Your task to perform on an android device: turn on showing notifications on the lock screen Image 0: 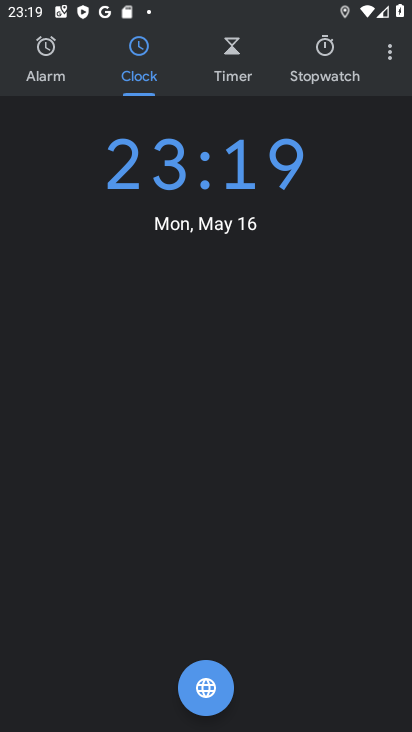
Step 0: press home button
Your task to perform on an android device: turn on showing notifications on the lock screen Image 1: 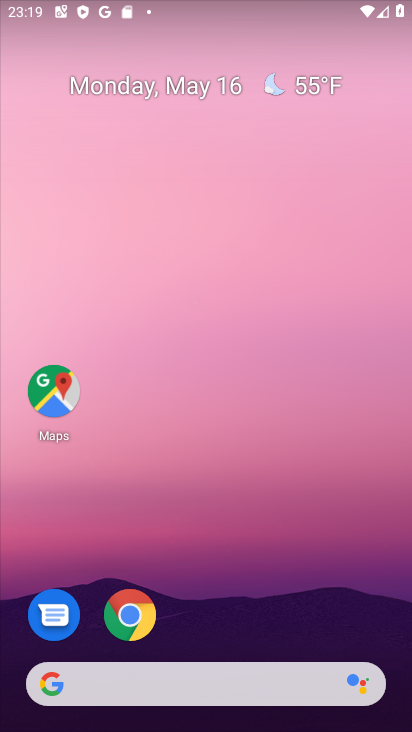
Step 1: drag from (244, 638) to (162, 29)
Your task to perform on an android device: turn on showing notifications on the lock screen Image 2: 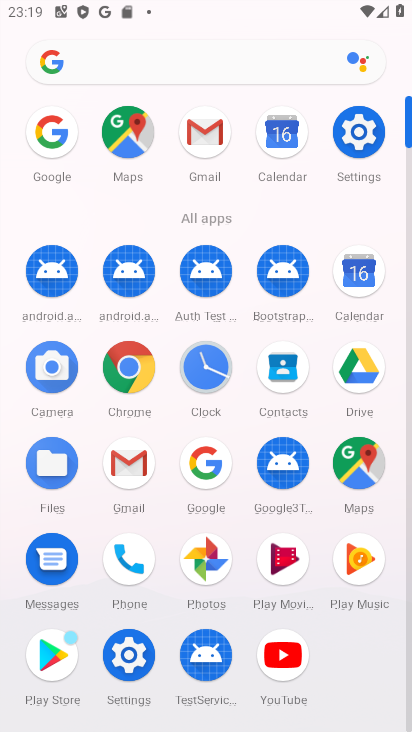
Step 2: click (351, 136)
Your task to perform on an android device: turn on showing notifications on the lock screen Image 3: 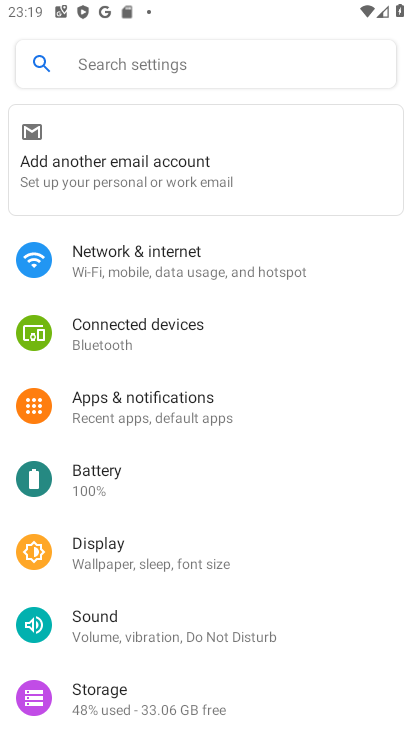
Step 3: click (142, 416)
Your task to perform on an android device: turn on showing notifications on the lock screen Image 4: 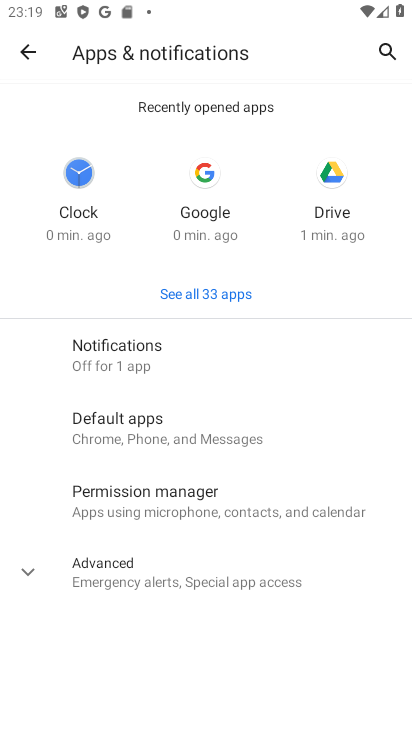
Step 4: click (134, 360)
Your task to perform on an android device: turn on showing notifications on the lock screen Image 5: 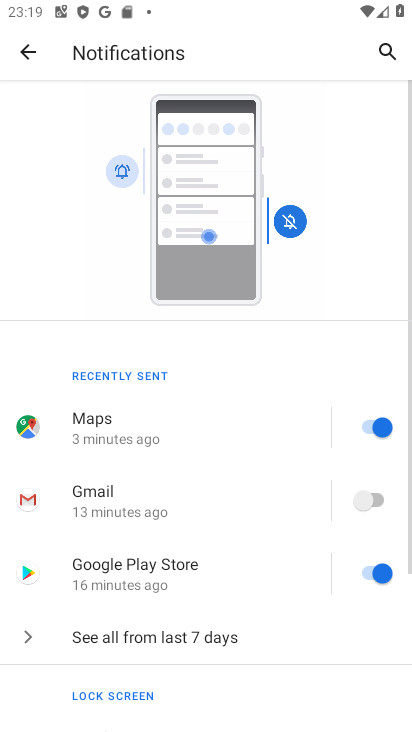
Step 5: drag from (169, 474) to (113, 200)
Your task to perform on an android device: turn on showing notifications on the lock screen Image 6: 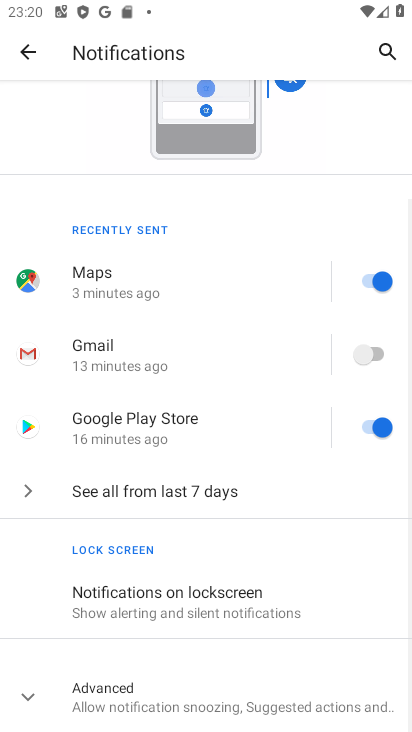
Step 6: click (166, 611)
Your task to perform on an android device: turn on showing notifications on the lock screen Image 7: 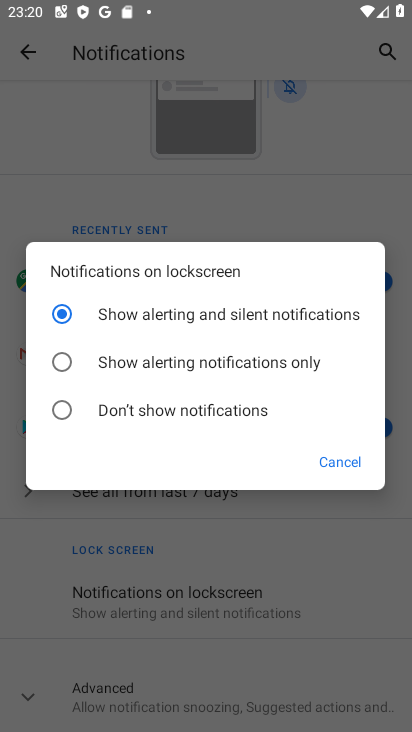
Step 7: click (103, 319)
Your task to perform on an android device: turn on showing notifications on the lock screen Image 8: 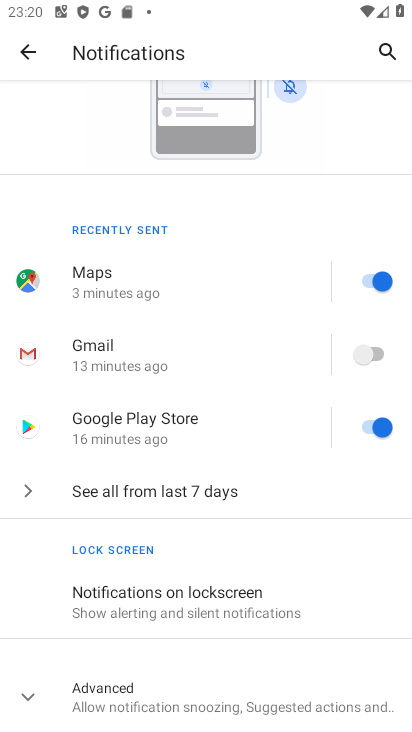
Step 8: task complete